Your task to perform on an android device: Go to display settings Image 0: 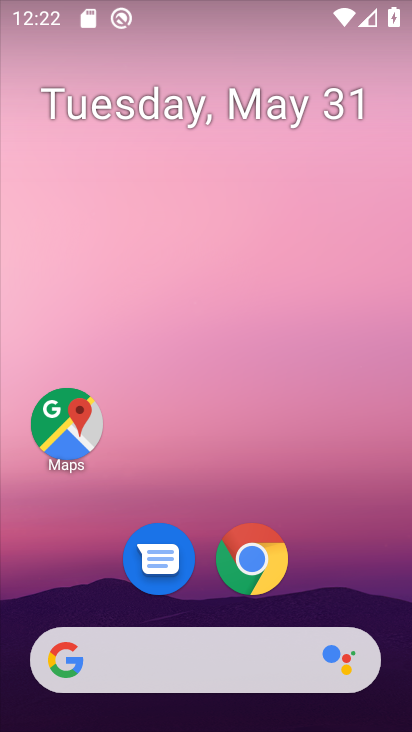
Step 0: drag from (151, 731) to (217, 70)
Your task to perform on an android device: Go to display settings Image 1: 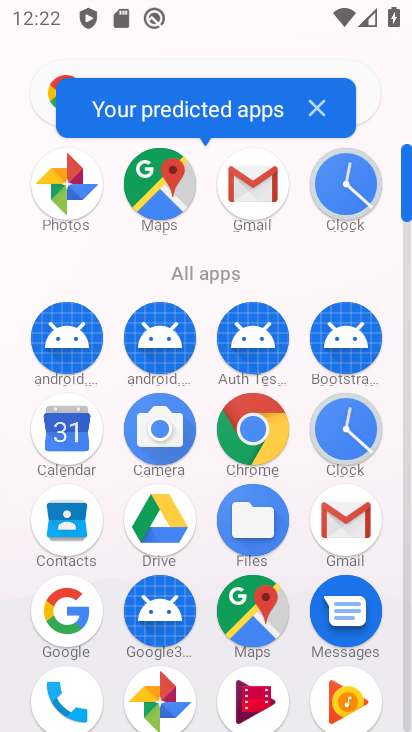
Step 1: drag from (109, 571) to (101, 224)
Your task to perform on an android device: Go to display settings Image 2: 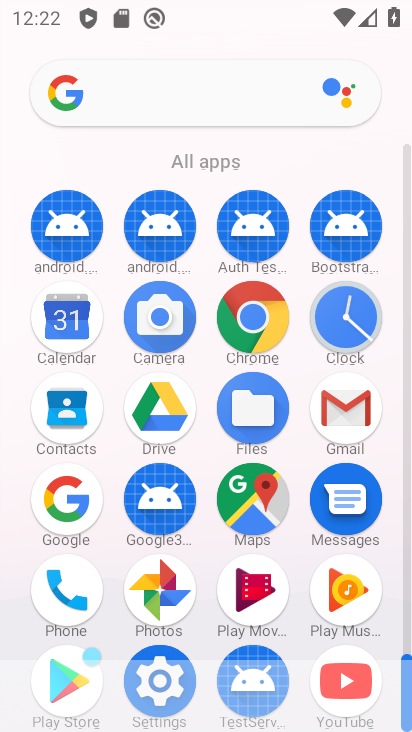
Step 2: click (161, 669)
Your task to perform on an android device: Go to display settings Image 3: 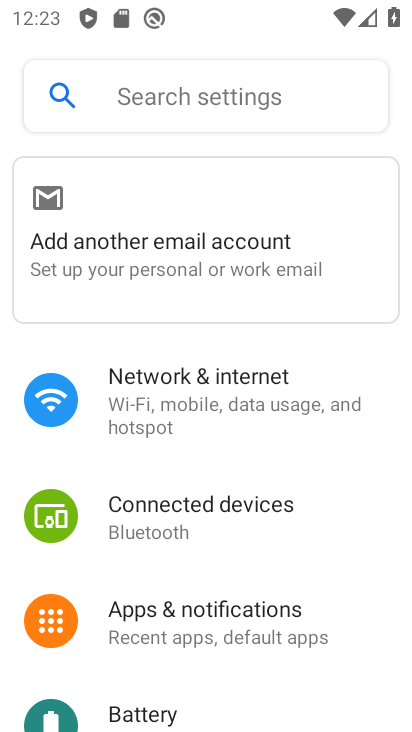
Step 3: drag from (237, 600) to (203, 325)
Your task to perform on an android device: Go to display settings Image 4: 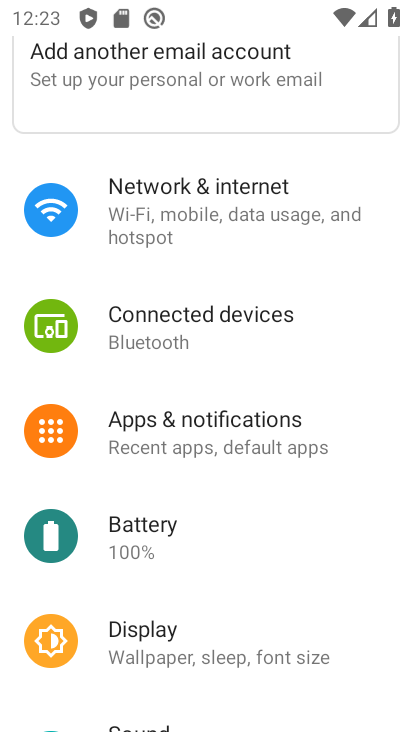
Step 4: click (202, 662)
Your task to perform on an android device: Go to display settings Image 5: 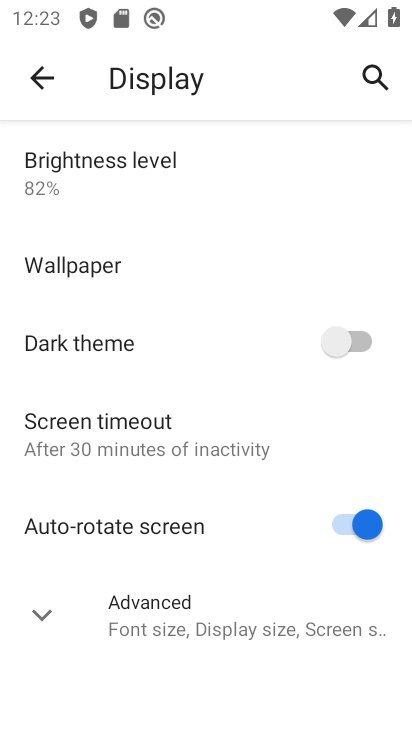
Step 5: task complete